Your task to perform on an android device: Open calendar and show me the third week of next month Image 0: 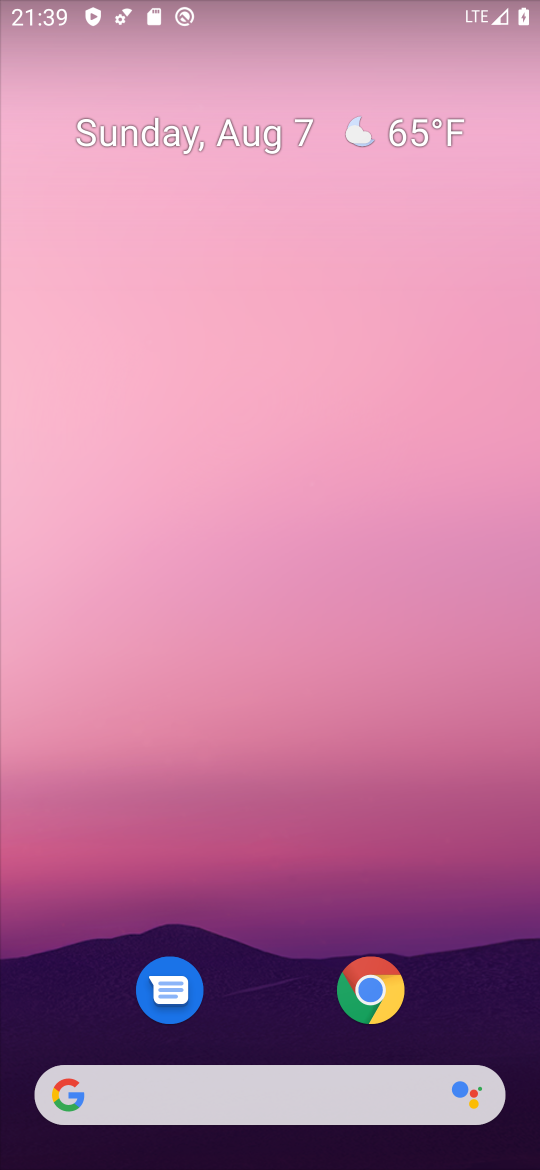
Step 0: drag from (303, 761) to (335, 3)
Your task to perform on an android device: Open calendar and show me the third week of next month Image 1: 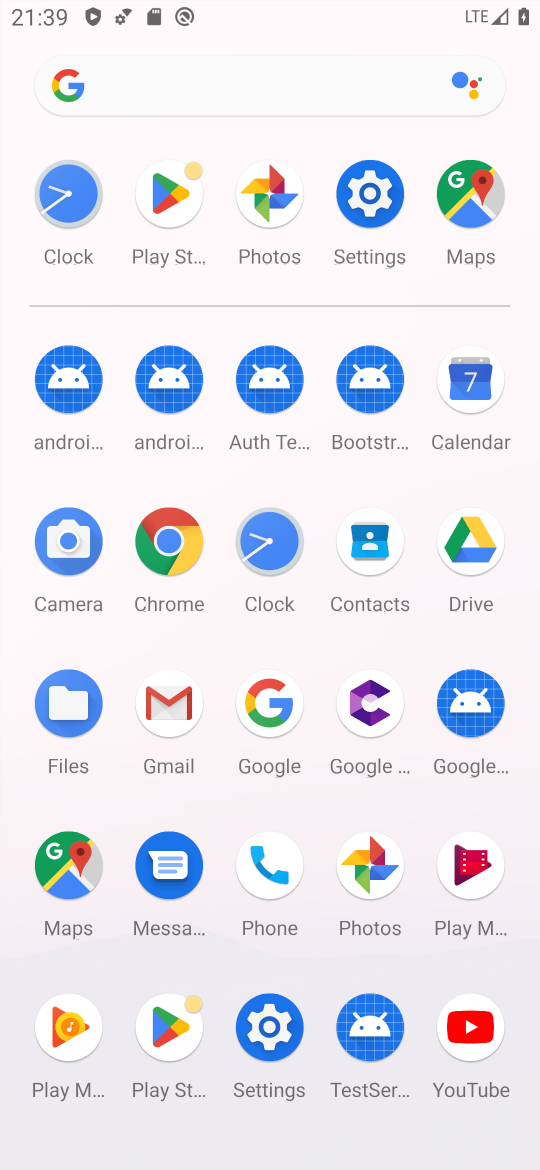
Step 1: click (495, 398)
Your task to perform on an android device: Open calendar and show me the third week of next month Image 2: 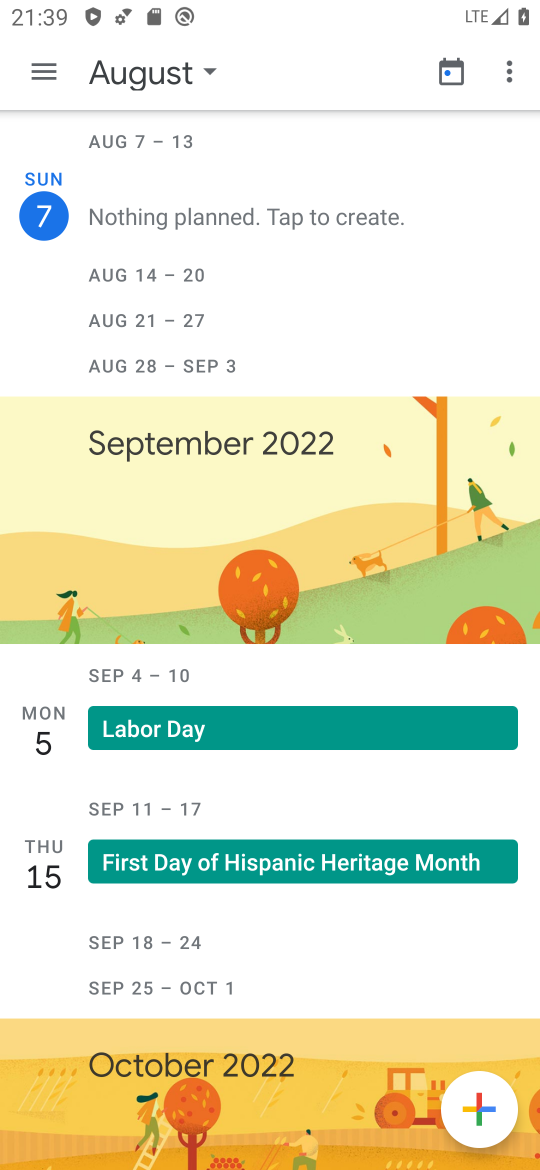
Step 2: click (495, 398)
Your task to perform on an android device: Open calendar and show me the third week of next month Image 3: 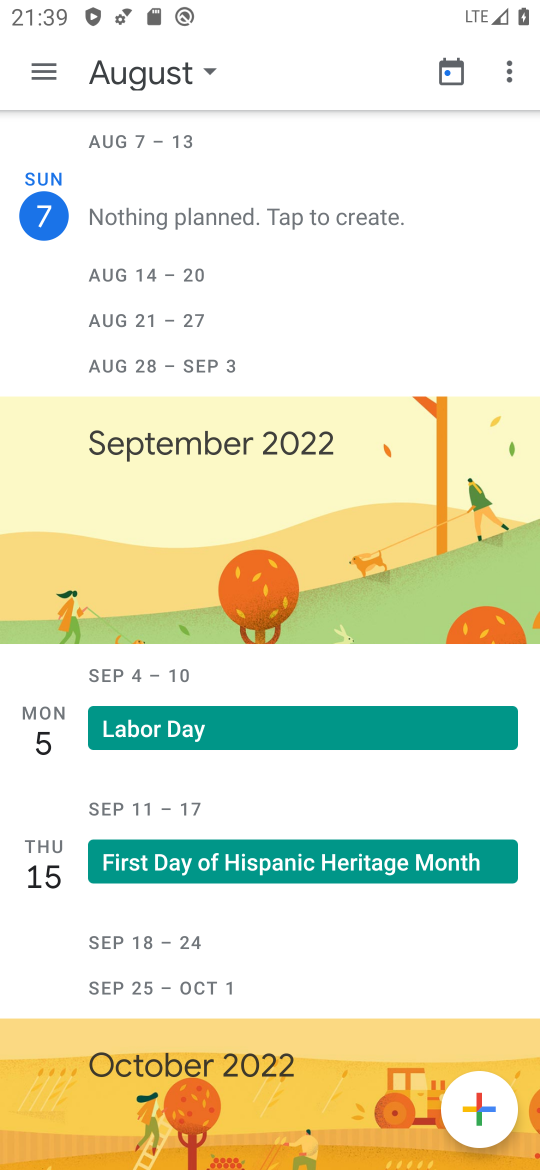
Step 3: press home button
Your task to perform on an android device: Open calendar and show me the third week of next month Image 4: 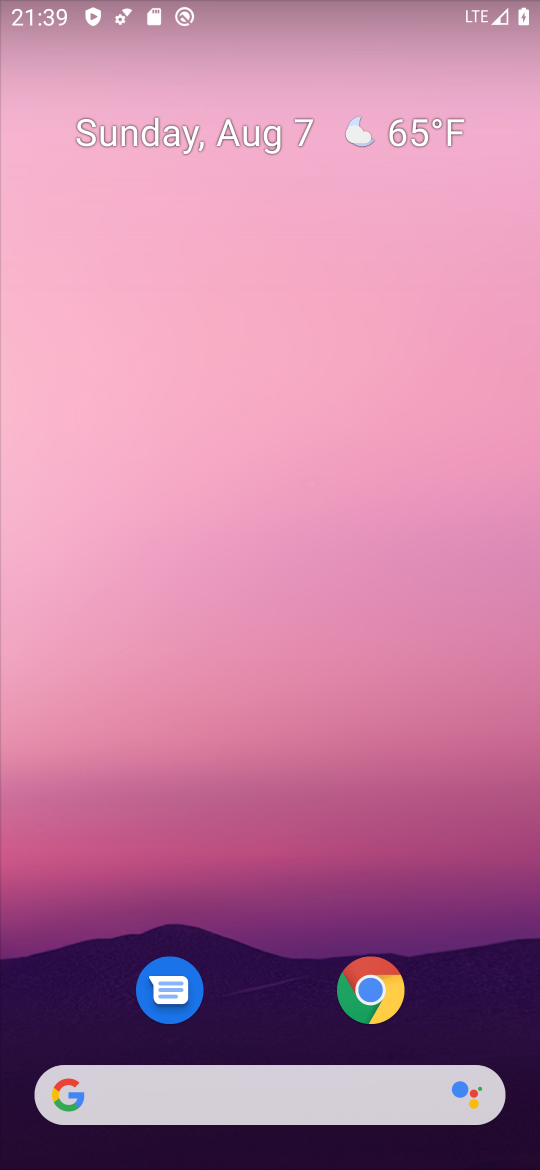
Step 4: drag from (263, 938) to (281, 4)
Your task to perform on an android device: Open calendar and show me the third week of next month Image 5: 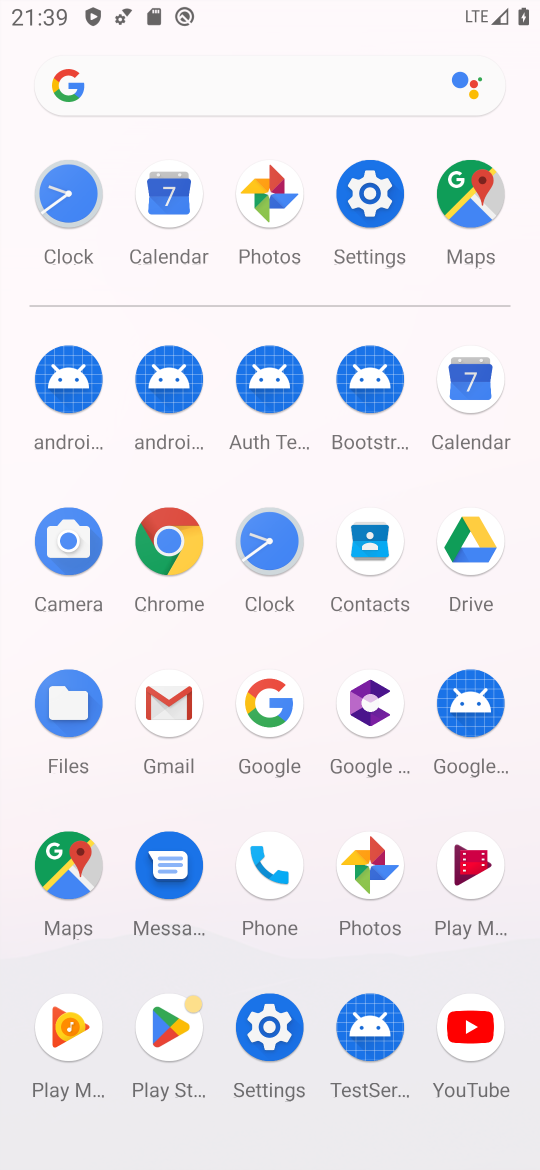
Step 5: click (167, 180)
Your task to perform on an android device: Open calendar and show me the third week of next month Image 6: 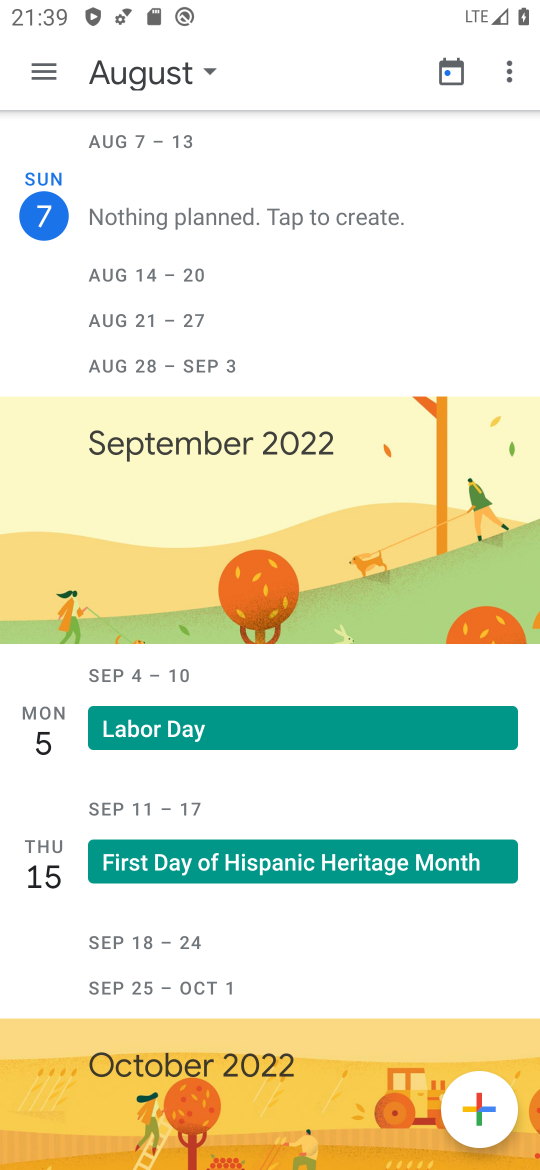
Step 6: click (46, 71)
Your task to perform on an android device: Open calendar and show me the third week of next month Image 7: 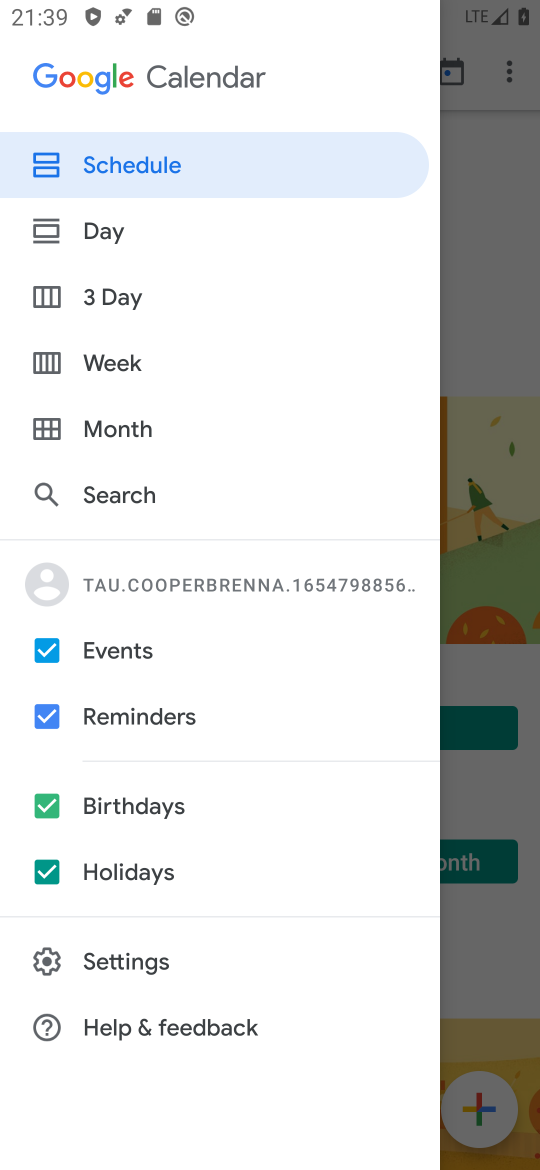
Step 7: click (99, 430)
Your task to perform on an android device: Open calendar and show me the third week of next month Image 8: 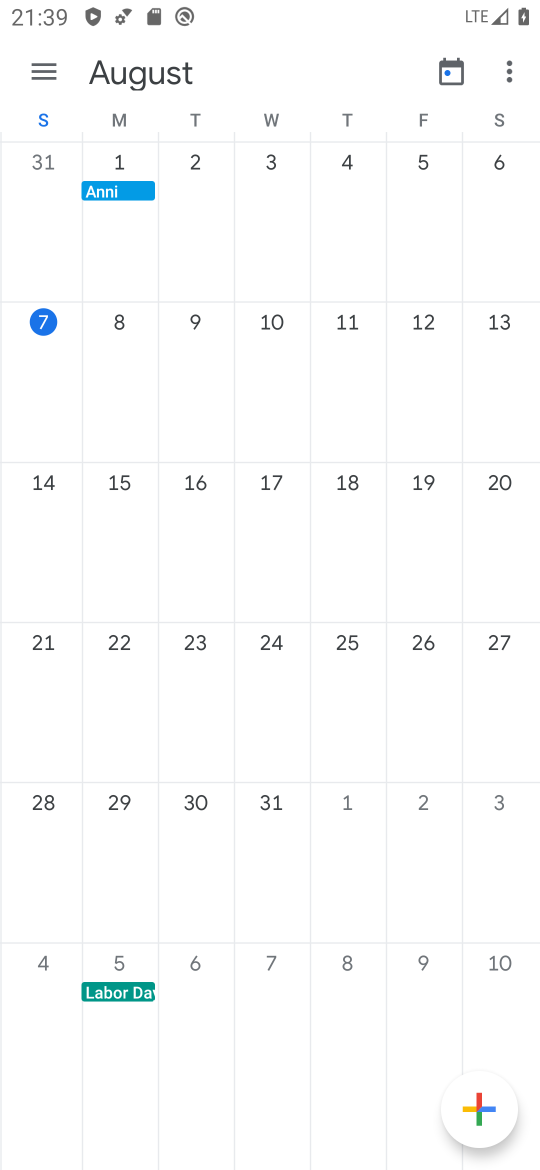
Step 8: drag from (483, 397) to (18, 349)
Your task to perform on an android device: Open calendar and show me the third week of next month Image 9: 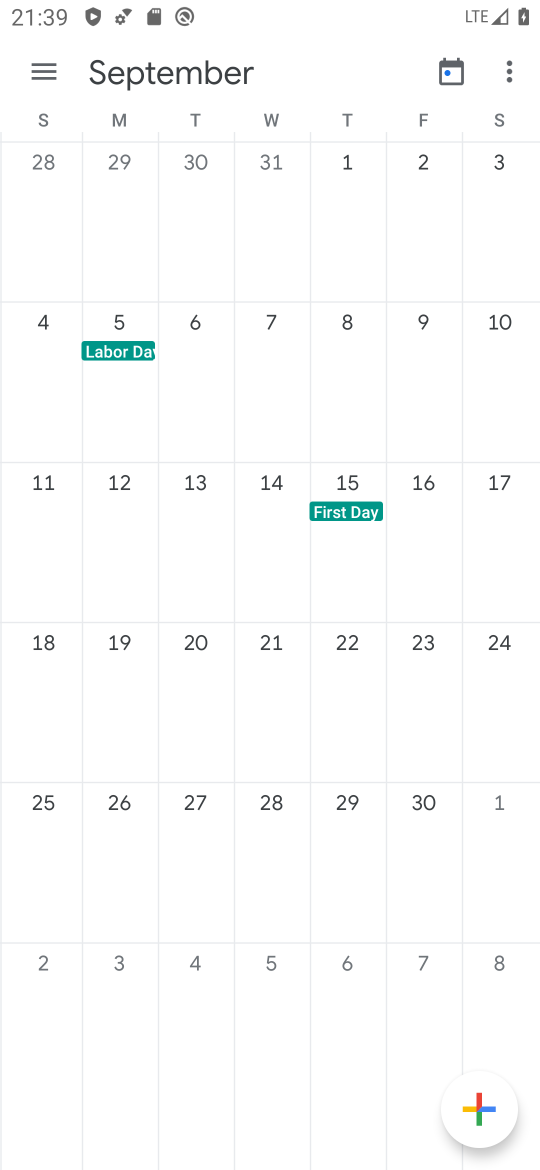
Step 9: click (42, 654)
Your task to perform on an android device: Open calendar and show me the third week of next month Image 10: 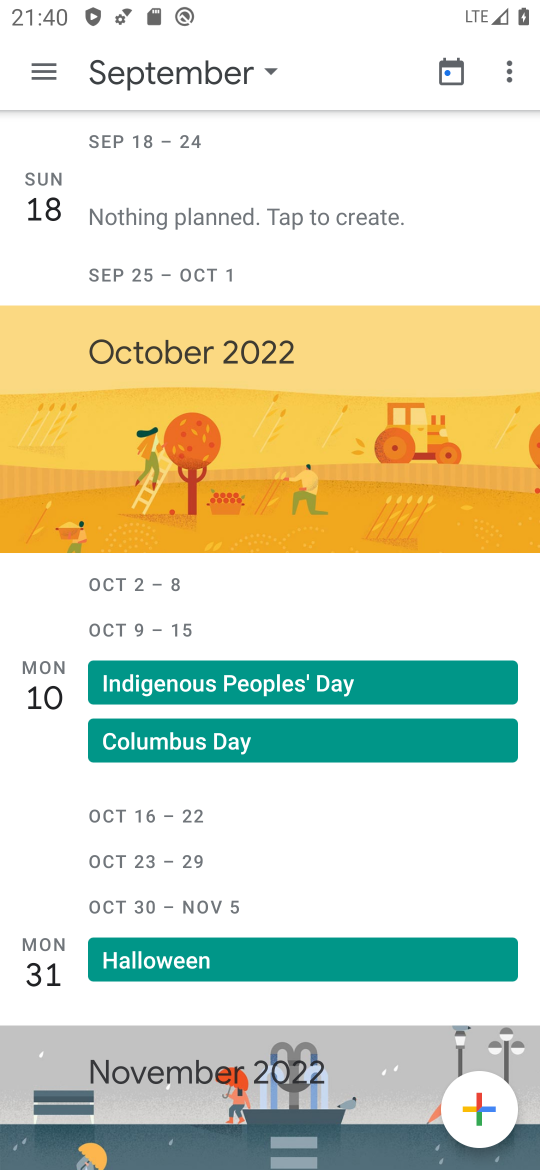
Step 10: click (47, 72)
Your task to perform on an android device: Open calendar and show me the third week of next month Image 11: 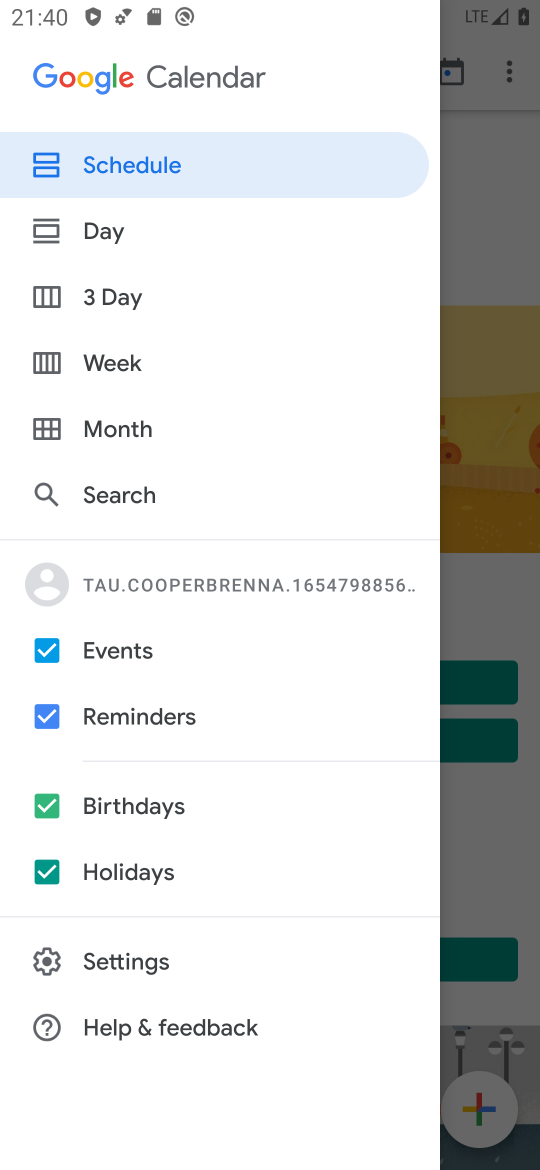
Step 11: click (44, 356)
Your task to perform on an android device: Open calendar and show me the third week of next month Image 12: 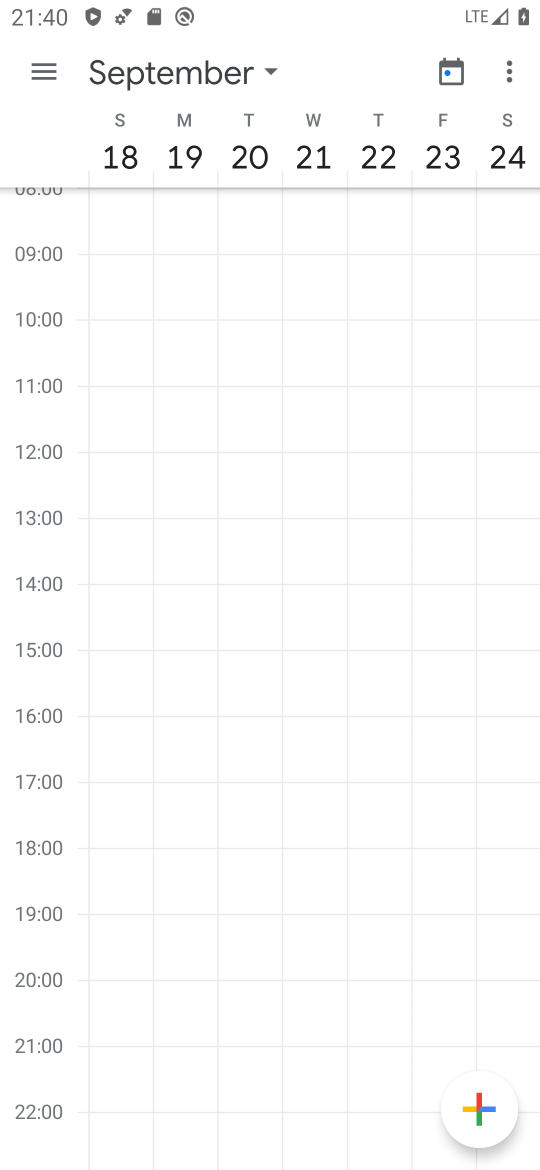
Step 12: task complete